Your task to perform on an android device: Clear the cart on amazon.com. Search for apple airpods pro on amazon.com, select the first entry, and add it to the cart. Image 0: 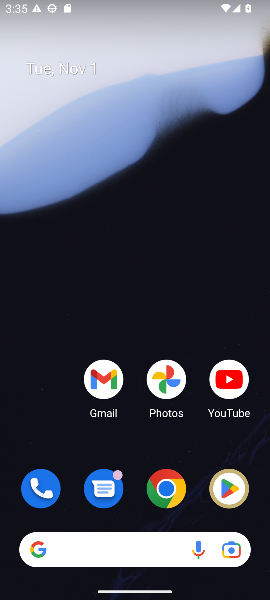
Step 0: drag from (145, 442) to (154, 12)
Your task to perform on an android device: Clear the cart on amazon.com. Search for apple airpods pro on amazon.com, select the first entry, and add it to the cart. Image 1: 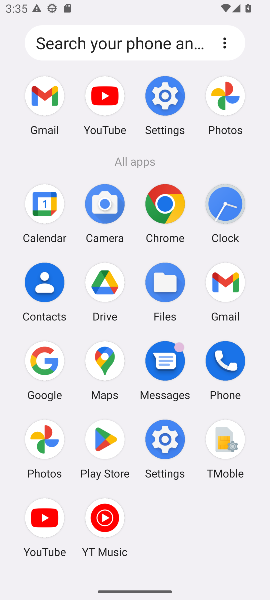
Step 1: click (162, 199)
Your task to perform on an android device: Clear the cart on amazon.com. Search for apple airpods pro on amazon.com, select the first entry, and add it to the cart. Image 2: 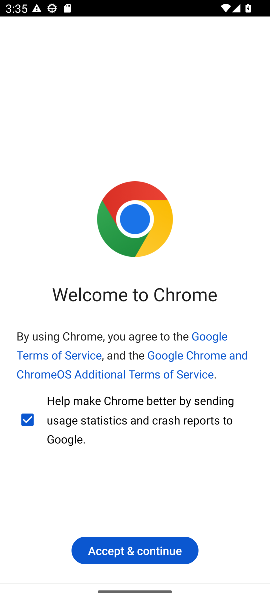
Step 2: click (129, 552)
Your task to perform on an android device: Clear the cart on amazon.com. Search for apple airpods pro on amazon.com, select the first entry, and add it to the cart. Image 3: 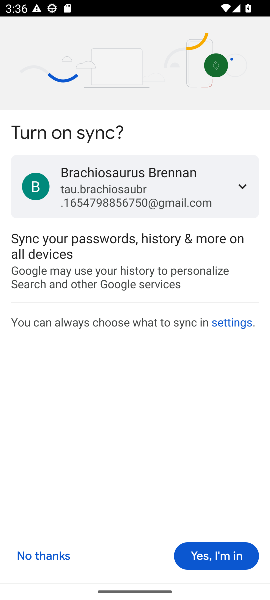
Step 3: click (215, 553)
Your task to perform on an android device: Clear the cart on amazon.com. Search for apple airpods pro on amazon.com, select the first entry, and add it to the cart. Image 4: 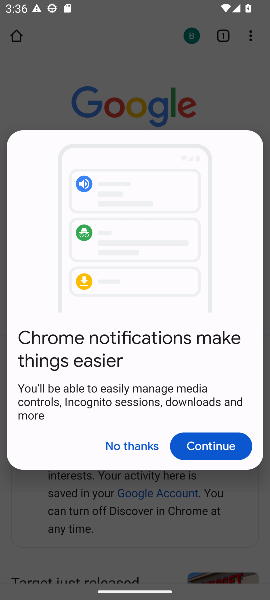
Step 4: click (122, 446)
Your task to perform on an android device: Clear the cart on amazon.com. Search for apple airpods pro on amazon.com, select the first entry, and add it to the cart. Image 5: 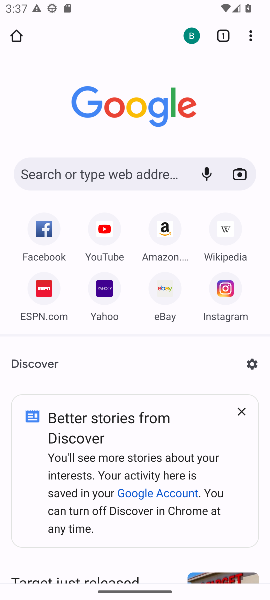
Step 5: click (162, 239)
Your task to perform on an android device: Clear the cart on amazon.com. Search for apple airpods pro on amazon.com, select the first entry, and add it to the cart. Image 6: 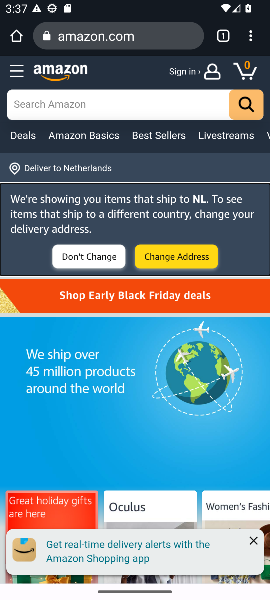
Step 6: click (86, 105)
Your task to perform on an android device: Clear the cart on amazon.com. Search for apple airpods pro on amazon.com, select the first entry, and add it to the cart. Image 7: 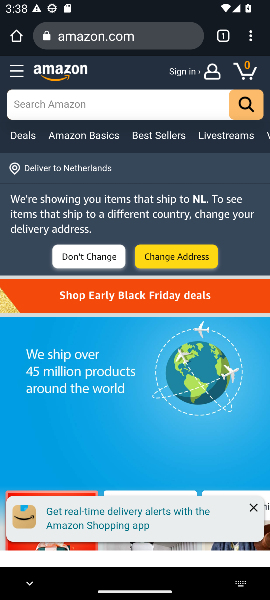
Step 7: type "apple airpods pro"
Your task to perform on an android device: Clear the cart on amazon.com. Search for apple airpods pro on amazon.com, select the first entry, and add it to the cart. Image 8: 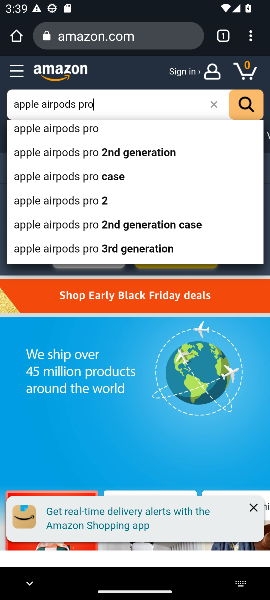
Step 8: click (99, 131)
Your task to perform on an android device: Clear the cart on amazon.com. Search for apple airpods pro on amazon.com, select the first entry, and add it to the cart. Image 9: 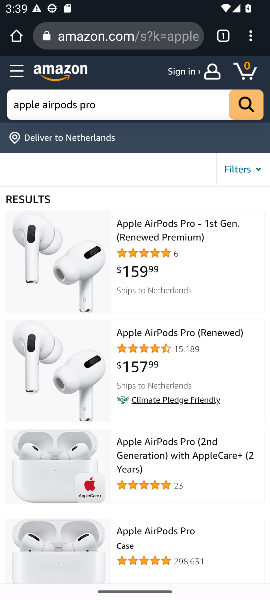
Step 9: click (150, 242)
Your task to perform on an android device: Clear the cart on amazon.com. Search for apple airpods pro on amazon.com, select the first entry, and add it to the cart. Image 10: 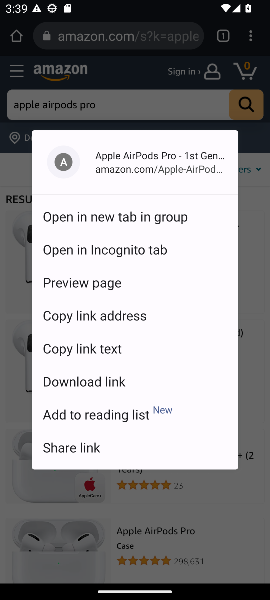
Step 10: click (199, 546)
Your task to perform on an android device: Clear the cart on amazon.com. Search for apple airpods pro on amazon.com, select the first entry, and add it to the cart. Image 11: 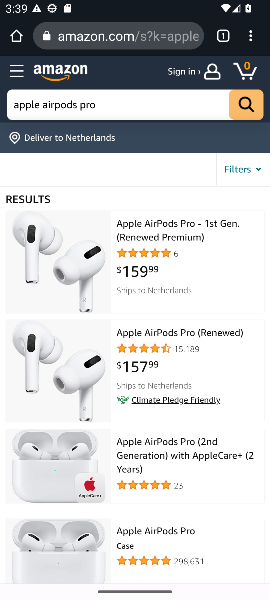
Step 11: click (21, 524)
Your task to perform on an android device: Clear the cart on amazon.com. Search for apple airpods pro on amazon.com, select the first entry, and add it to the cart. Image 12: 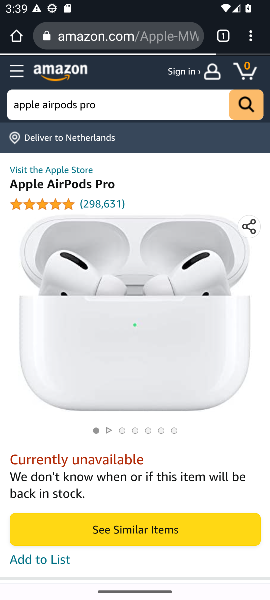
Step 12: click (82, 244)
Your task to perform on an android device: Clear the cart on amazon.com. Search for apple airpods pro on amazon.com, select the first entry, and add it to the cart. Image 13: 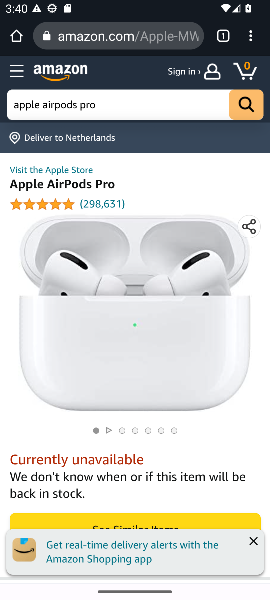
Step 13: drag from (103, 483) to (74, 184)
Your task to perform on an android device: Clear the cart on amazon.com. Search for apple airpods pro on amazon.com, select the first entry, and add it to the cart. Image 14: 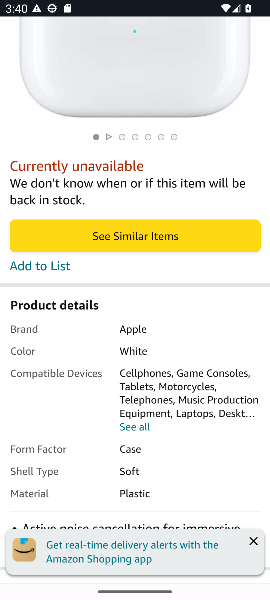
Step 14: click (137, 240)
Your task to perform on an android device: Clear the cart on amazon.com. Search for apple airpods pro on amazon.com, select the first entry, and add it to the cart. Image 15: 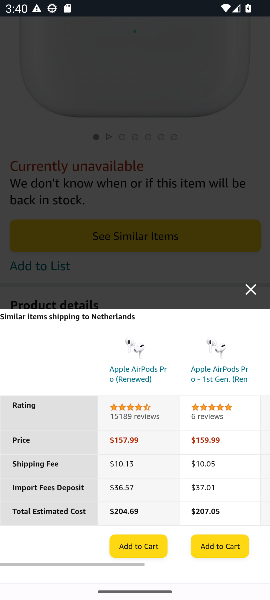
Step 15: click (213, 543)
Your task to perform on an android device: Clear the cart on amazon.com. Search for apple airpods pro on amazon.com, select the first entry, and add it to the cart. Image 16: 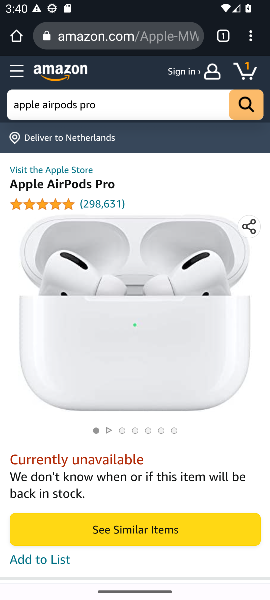
Step 16: click (108, 527)
Your task to perform on an android device: Clear the cart on amazon.com. Search for apple airpods pro on amazon.com, select the first entry, and add it to the cart. Image 17: 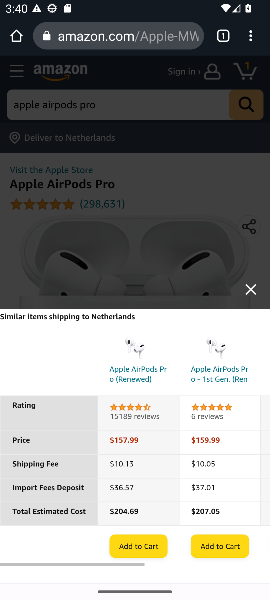
Step 17: click (232, 138)
Your task to perform on an android device: Clear the cart on amazon.com. Search for apple airpods pro on amazon.com, select the first entry, and add it to the cart. Image 18: 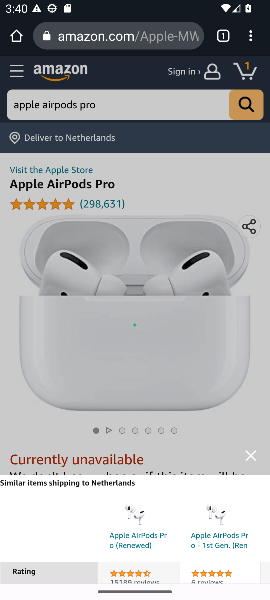
Step 18: click (243, 75)
Your task to perform on an android device: Clear the cart on amazon.com. Search for apple airpods pro on amazon.com, select the first entry, and add it to the cart. Image 19: 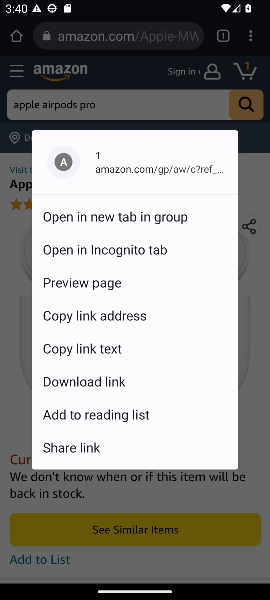
Step 19: click (243, 62)
Your task to perform on an android device: Clear the cart on amazon.com. Search for apple airpods pro on amazon.com, select the first entry, and add it to the cart. Image 20: 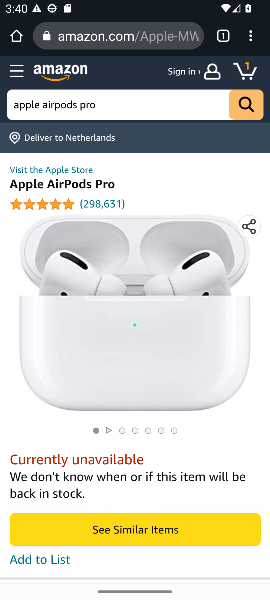
Step 20: click (245, 70)
Your task to perform on an android device: Clear the cart on amazon.com. Search for apple airpods pro on amazon.com, select the first entry, and add it to the cart. Image 21: 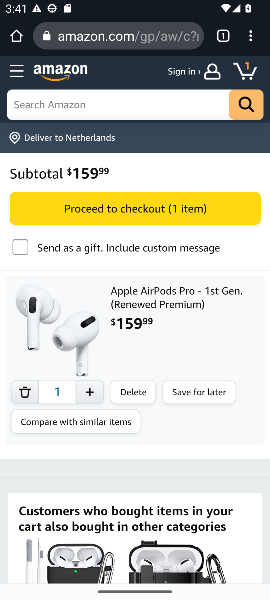
Step 21: click (252, 66)
Your task to perform on an android device: Clear the cart on amazon.com. Search for apple airpods pro on amazon.com, select the first entry, and add it to the cart. Image 22: 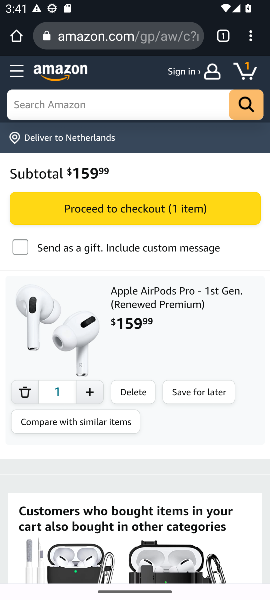
Step 22: task complete